Your task to perform on an android device: turn off airplane mode Image 0: 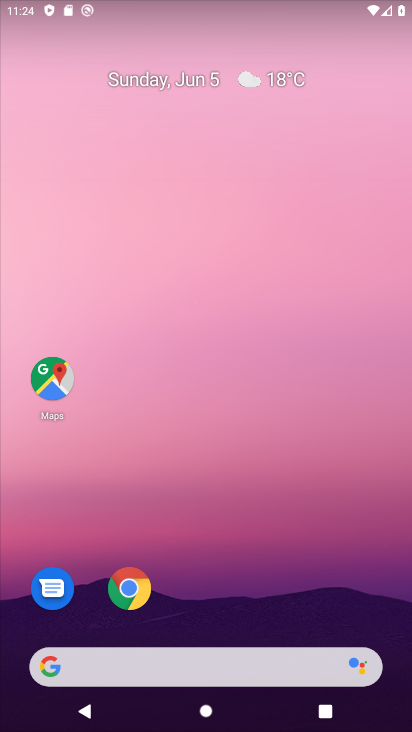
Step 0: drag from (276, 612) to (225, 234)
Your task to perform on an android device: turn off airplane mode Image 1: 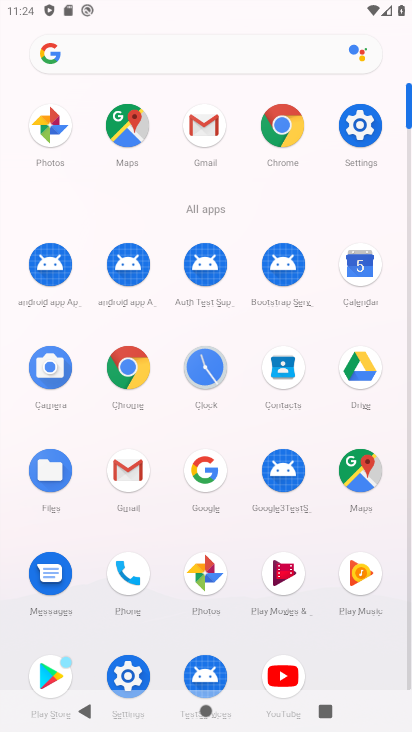
Step 1: click (372, 129)
Your task to perform on an android device: turn off airplane mode Image 2: 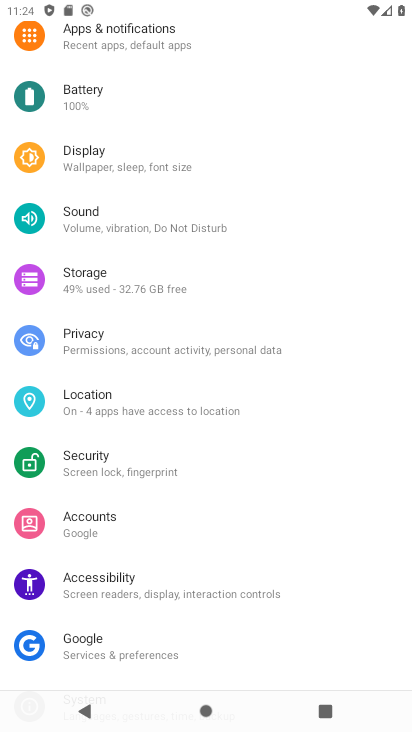
Step 2: drag from (167, 58) to (134, 503)
Your task to perform on an android device: turn off airplane mode Image 3: 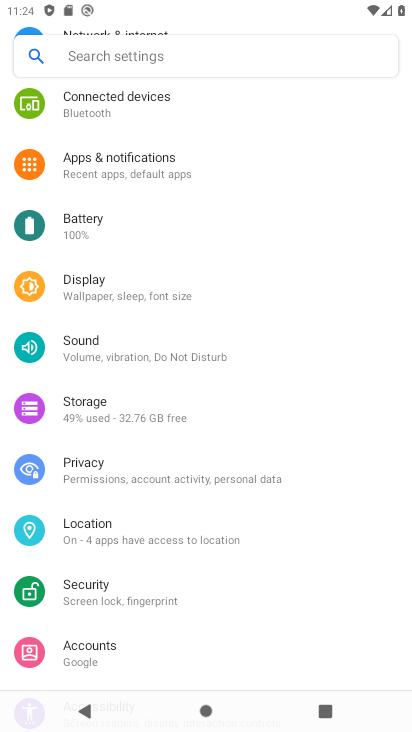
Step 3: drag from (118, 84) to (74, 641)
Your task to perform on an android device: turn off airplane mode Image 4: 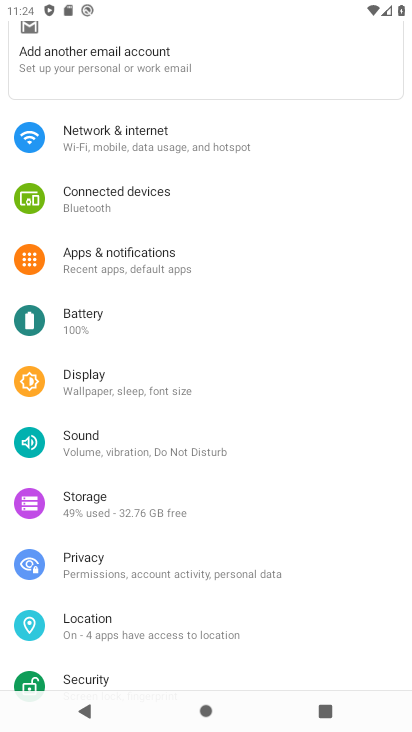
Step 4: click (168, 139)
Your task to perform on an android device: turn off airplane mode Image 5: 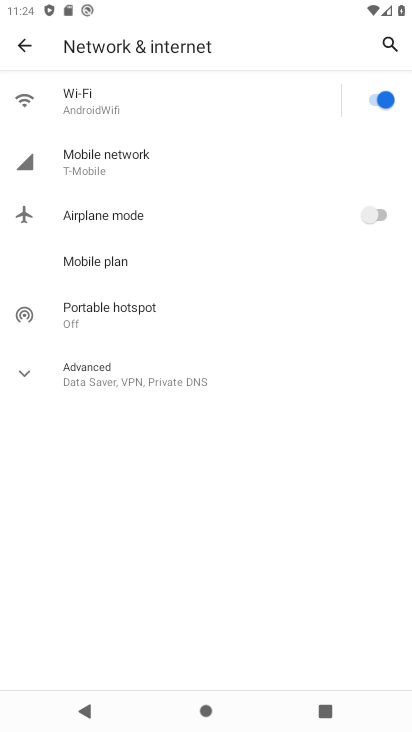
Step 5: task complete